Your task to perform on an android device: turn on javascript in the chrome app Image 0: 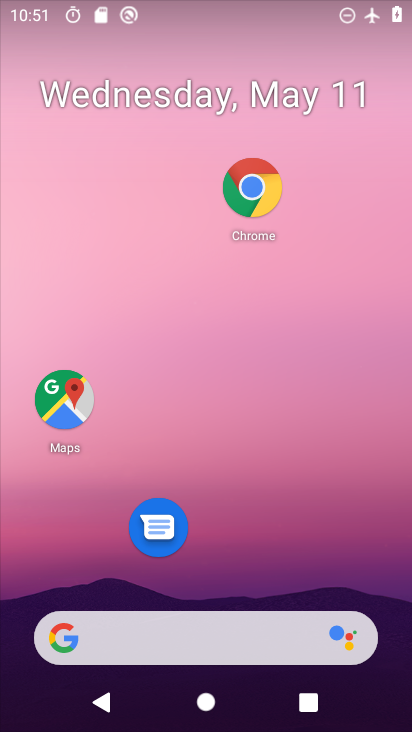
Step 0: drag from (224, 660) to (231, 390)
Your task to perform on an android device: turn on javascript in the chrome app Image 1: 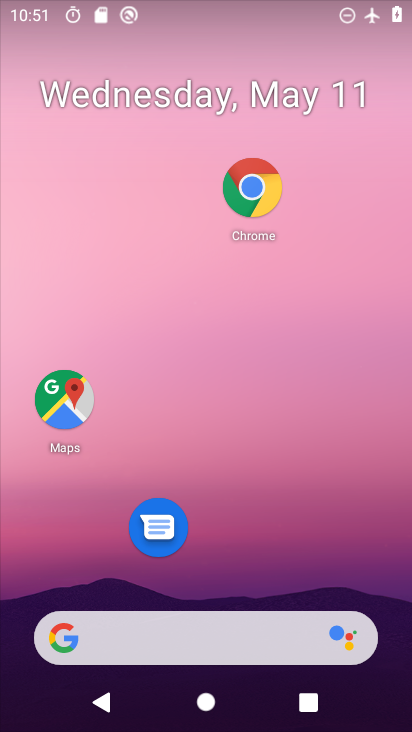
Step 1: click (251, 222)
Your task to perform on an android device: turn on javascript in the chrome app Image 2: 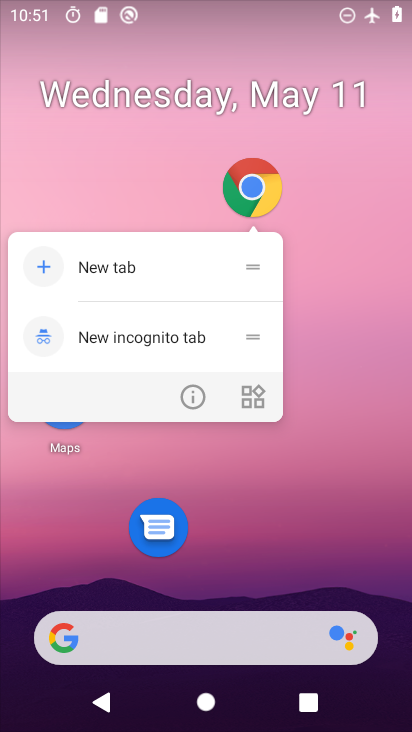
Step 2: click (251, 218)
Your task to perform on an android device: turn on javascript in the chrome app Image 3: 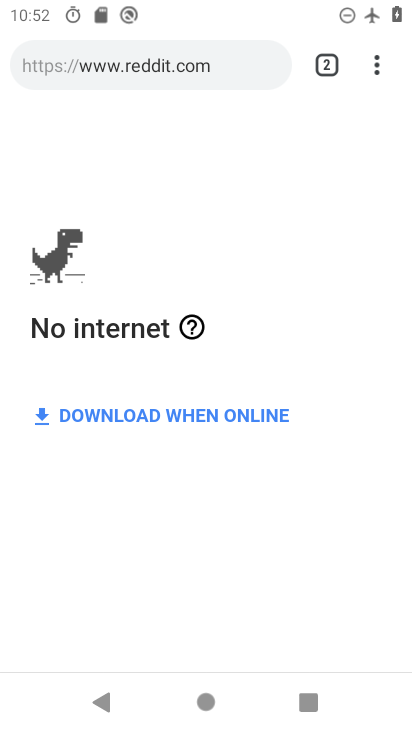
Step 3: click (374, 84)
Your task to perform on an android device: turn on javascript in the chrome app Image 4: 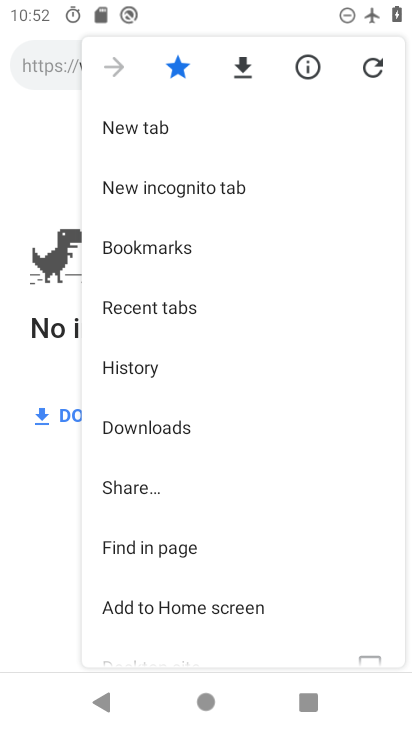
Step 4: drag from (240, 511) to (264, 429)
Your task to perform on an android device: turn on javascript in the chrome app Image 5: 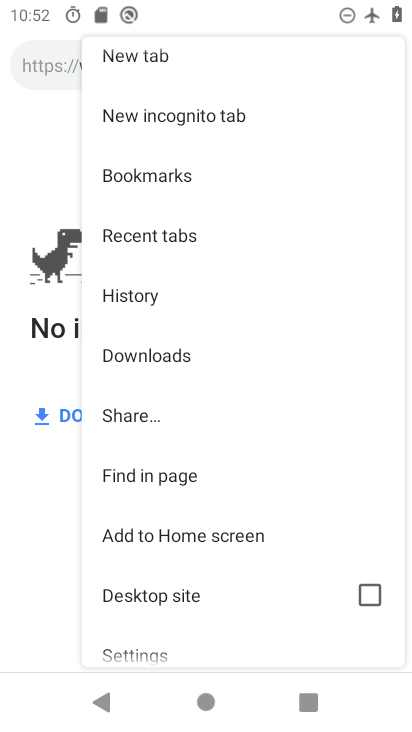
Step 5: drag from (235, 548) to (227, 170)
Your task to perform on an android device: turn on javascript in the chrome app Image 6: 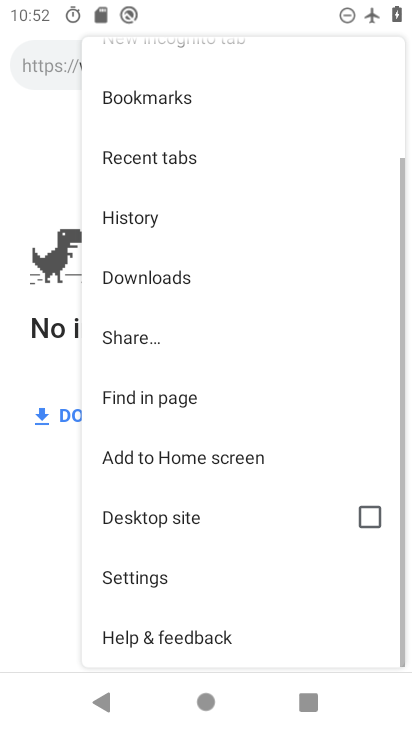
Step 6: click (166, 568)
Your task to perform on an android device: turn on javascript in the chrome app Image 7: 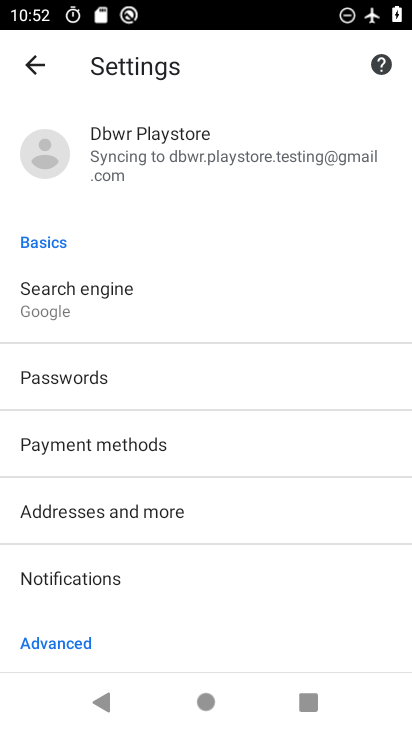
Step 7: drag from (134, 546) to (222, 129)
Your task to perform on an android device: turn on javascript in the chrome app Image 8: 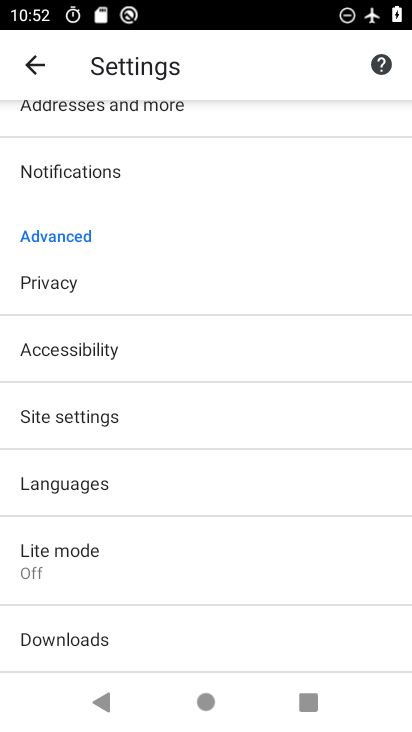
Step 8: drag from (181, 603) to (214, 248)
Your task to perform on an android device: turn on javascript in the chrome app Image 9: 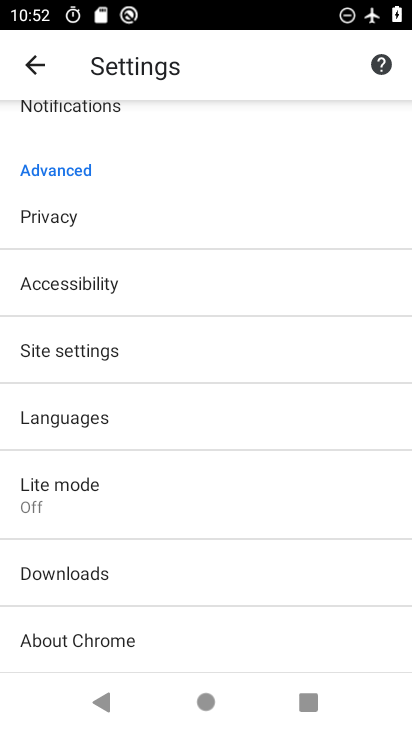
Step 9: click (109, 357)
Your task to perform on an android device: turn on javascript in the chrome app Image 10: 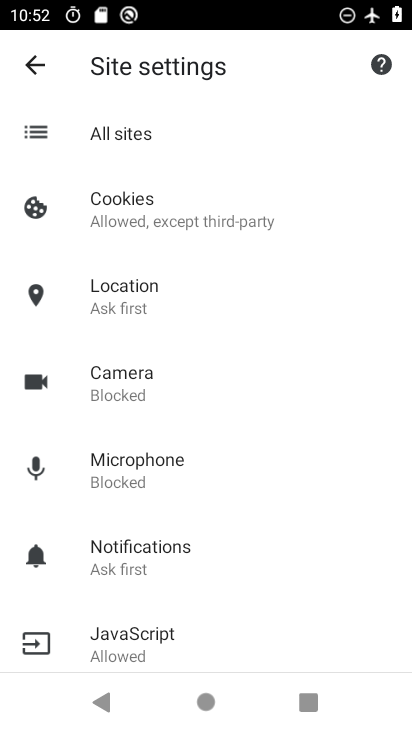
Step 10: click (207, 643)
Your task to perform on an android device: turn on javascript in the chrome app Image 11: 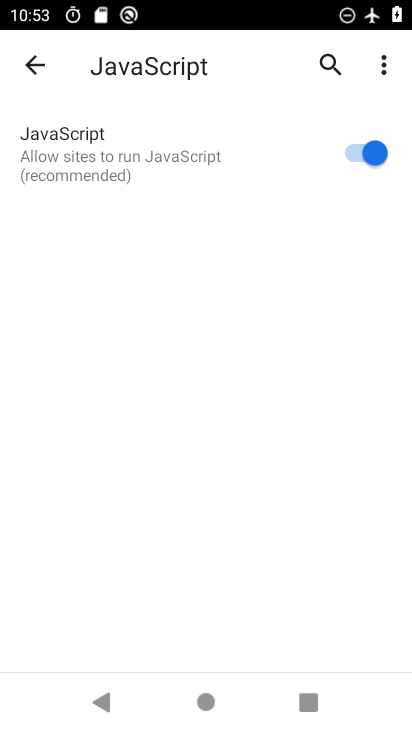
Step 11: task complete